Your task to perform on an android device: check data usage Image 0: 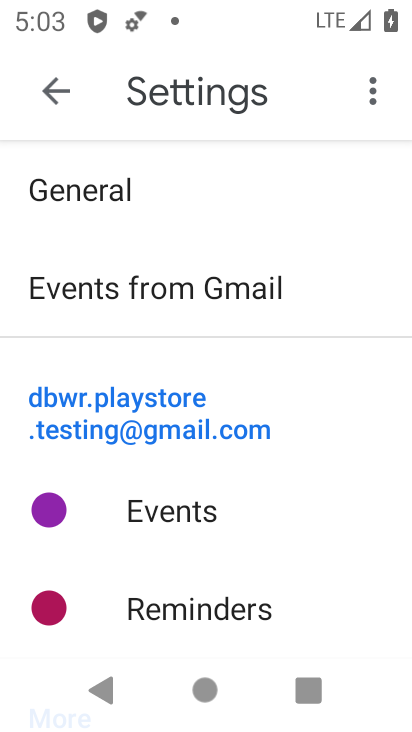
Step 0: press back button
Your task to perform on an android device: check data usage Image 1: 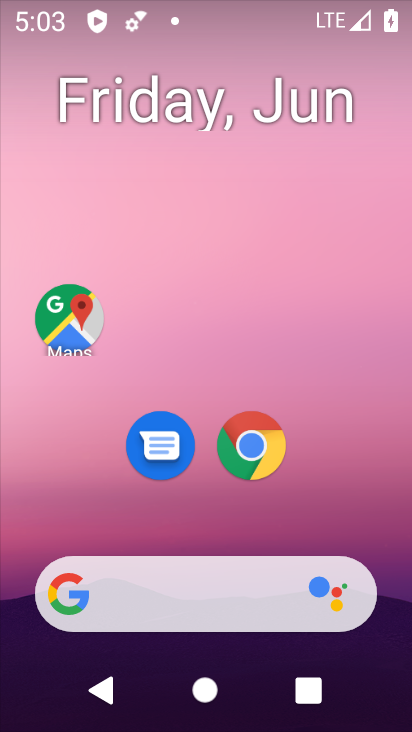
Step 1: task complete